Your task to perform on an android device: turn off airplane mode Image 0: 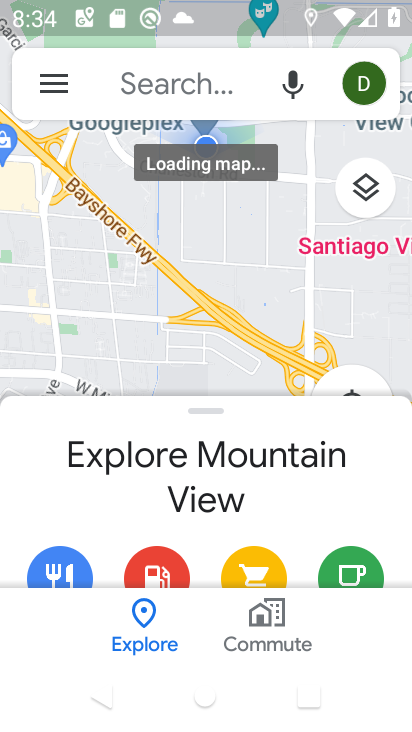
Step 0: press back button
Your task to perform on an android device: turn off airplane mode Image 1: 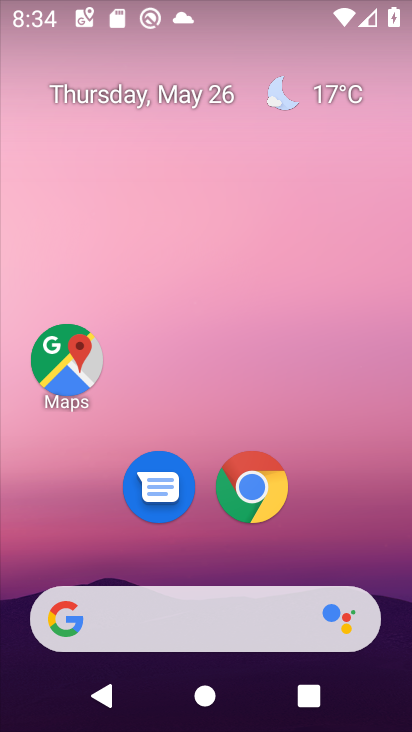
Step 1: task complete